Your task to perform on an android device: See recent photos Image 0: 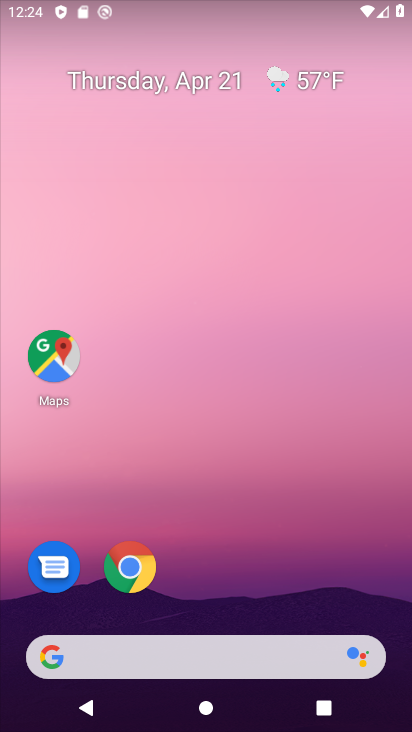
Step 0: drag from (325, 590) to (346, 169)
Your task to perform on an android device: See recent photos Image 1: 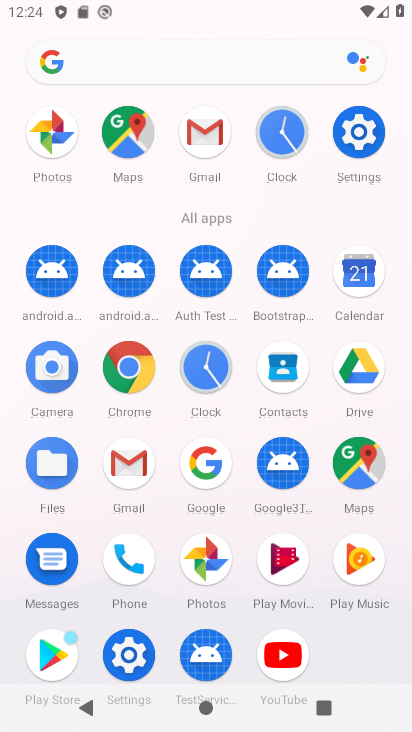
Step 1: click (208, 565)
Your task to perform on an android device: See recent photos Image 2: 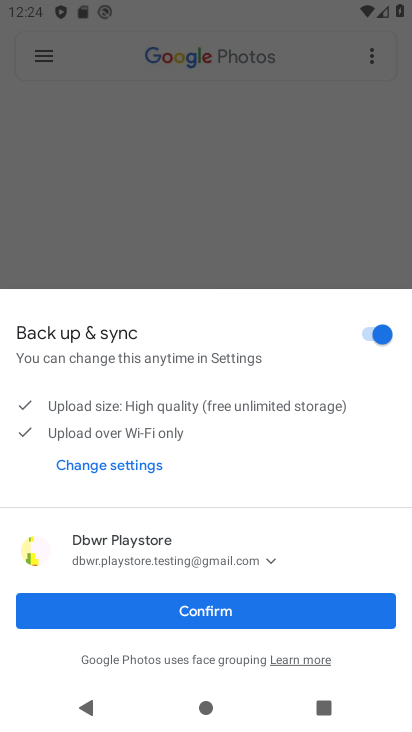
Step 2: click (367, 616)
Your task to perform on an android device: See recent photos Image 3: 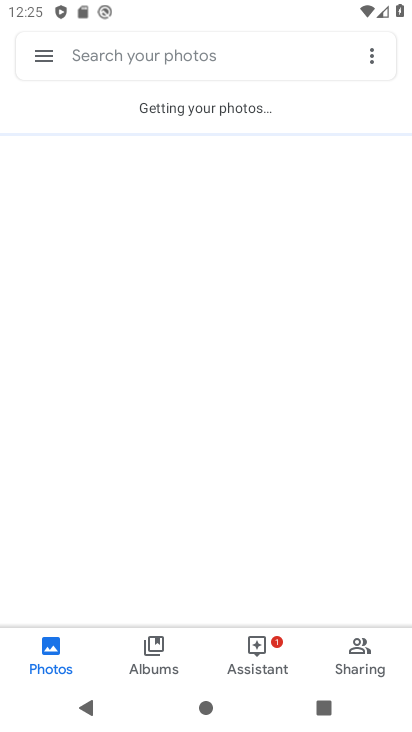
Step 3: task complete